Your task to perform on an android device: show emergency info Image 0: 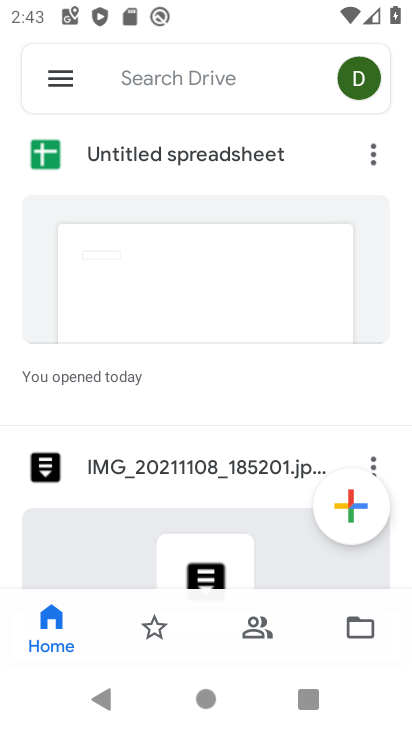
Step 0: press back button
Your task to perform on an android device: show emergency info Image 1: 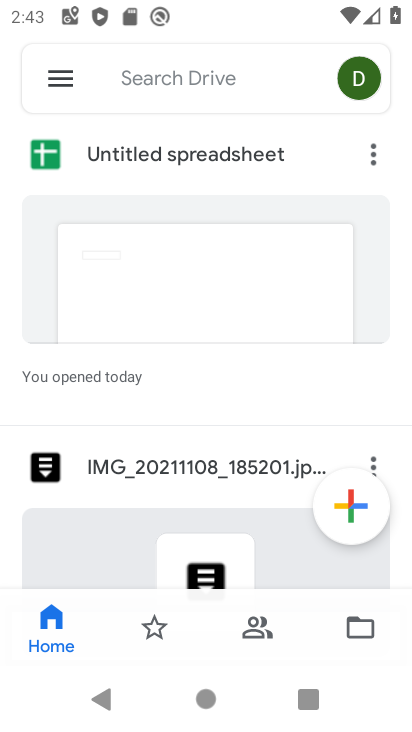
Step 1: press back button
Your task to perform on an android device: show emergency info Image 2: 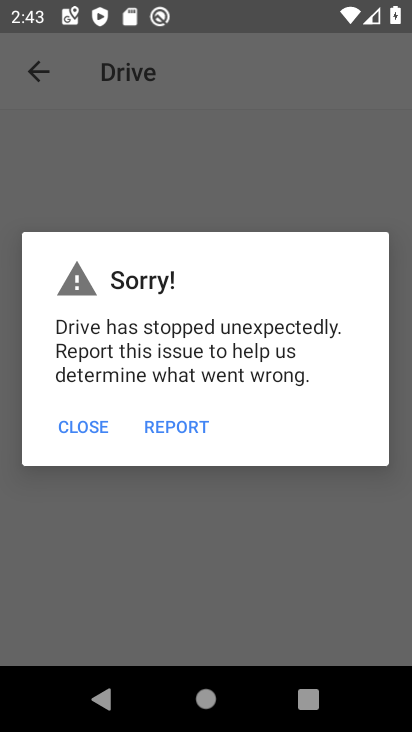
Step 2: click (411, 693)
Your task to perform on an android device: show emergency info Image 3: 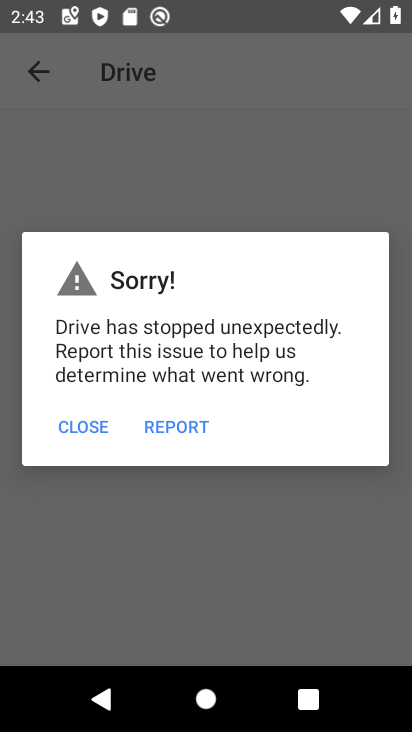
Step 3: click (73, 431)
Your task to perform on an android device: show emergency info Image 4: 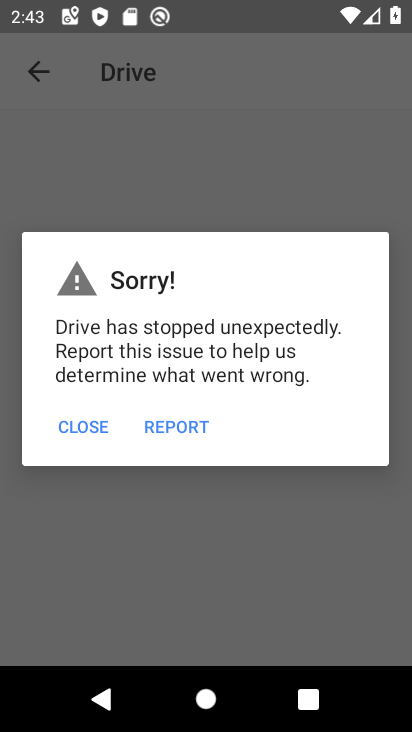
Step 4: click (73, 431)
Your task to perform on an android device: show emergency info Image 5: 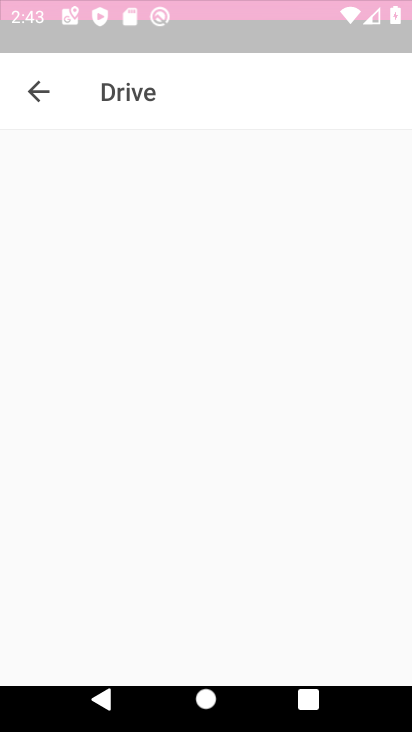
Step 5: click (73, 431)
Your task to perform on an android device: show emergency info Image 6: 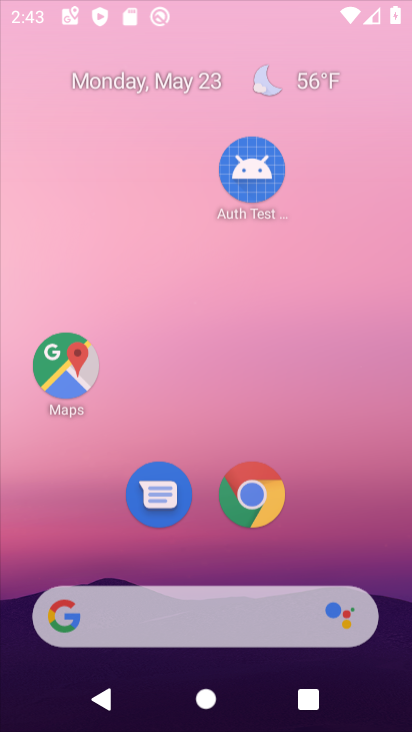
Step 6: click (77, 428)
Your task to perform on an android device: show emergency info Image 7: 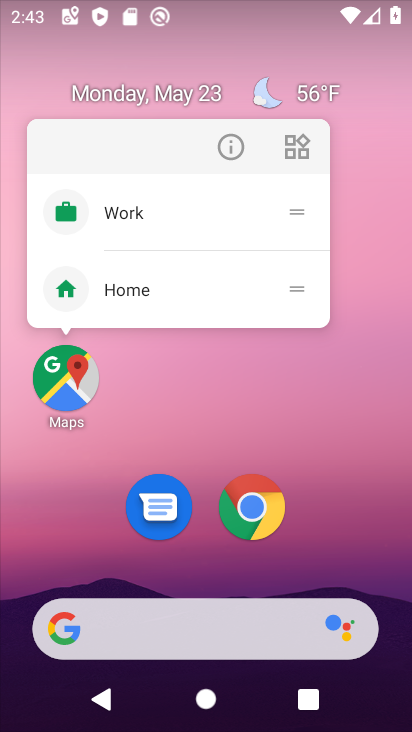
Step 7: drag from (303, 630) to (193, 61)
Your task to perform on an android device: show emergency info Image 8: 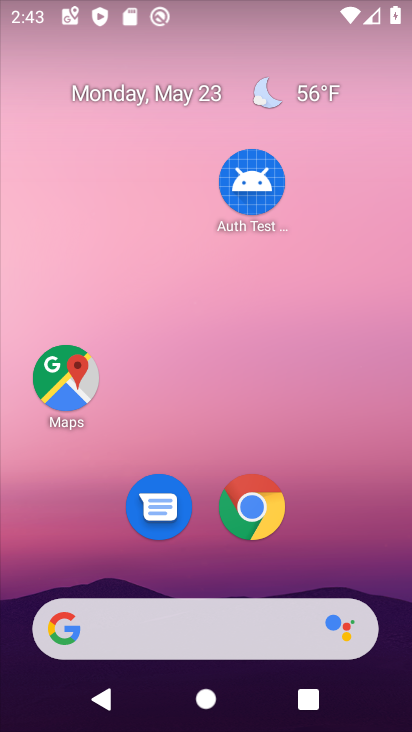
Step 8: drag from (283, 612) to (132, 52)
Your task to perform on an android device: show emergency info Image 9: 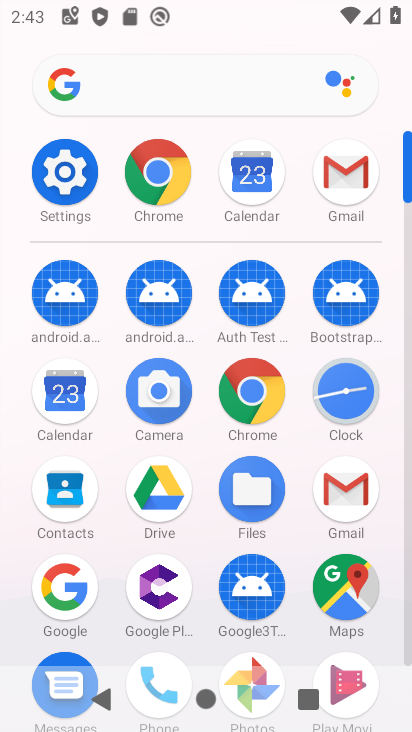
Step 9: drag from (275, 637) to (183, 23)
Your task to perform on an android device: show emergency info Image 10: 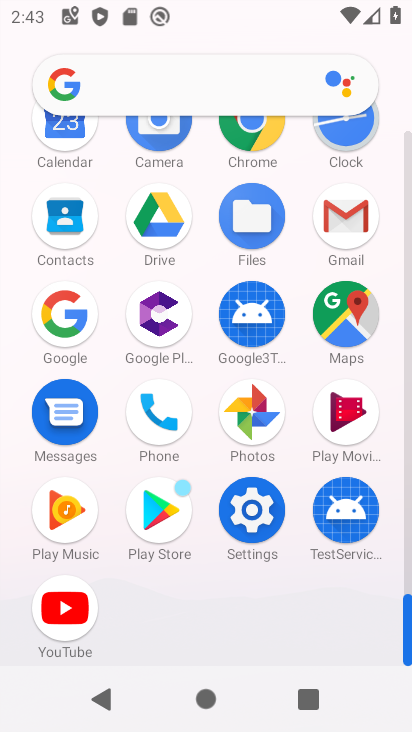
Step 10: click (251, 517)
Your task to perform on an android device: show emergency info Image 11: 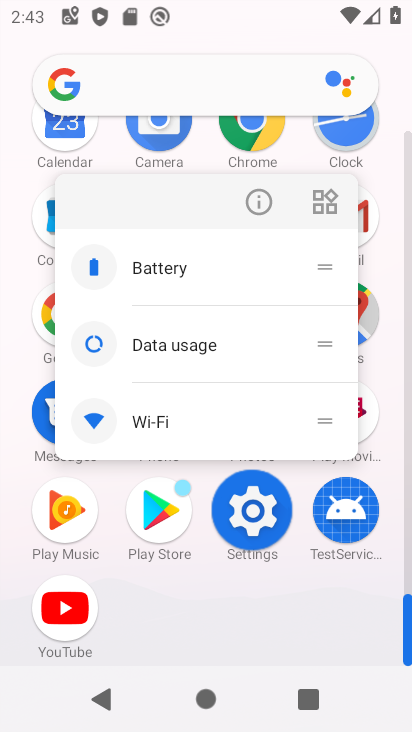
Step 11: click (251, 517)
Your task to perform on an android device: show emergency info Image 12: 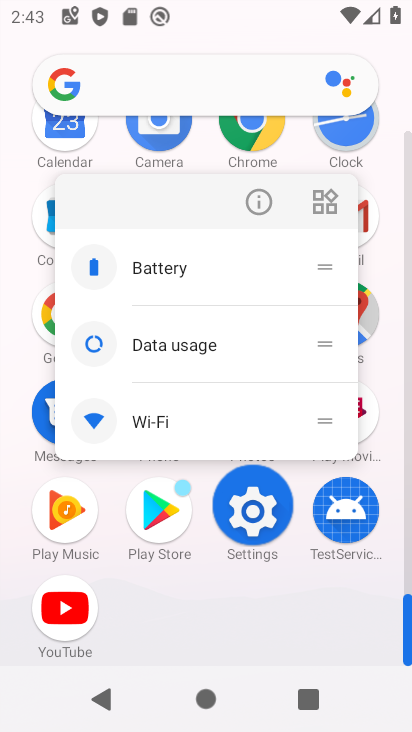
Step 12: click (252, 511)
Your task to perform on an android device: show emergency info Image 13: 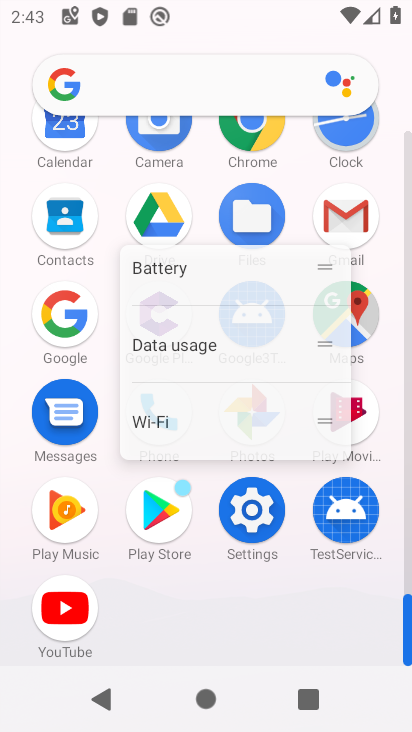
Step 13: click (252, 511)
Your task to perform on an android device: show emergency info Image 14: 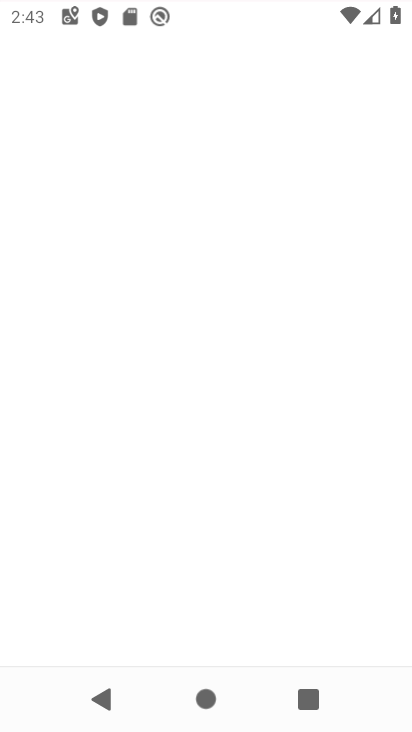
Step 14: click (252, 511)
Your task to perform on an android device: show emergency info Image 15: 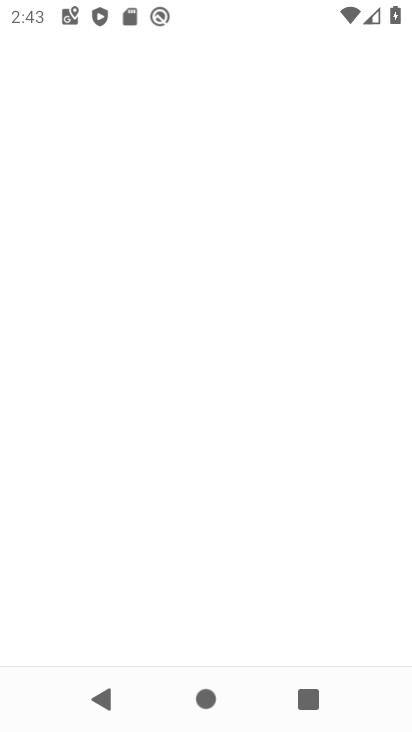
Step 15: click (252, 511)
Your task to perform on an android device: show emergency info Image 16: 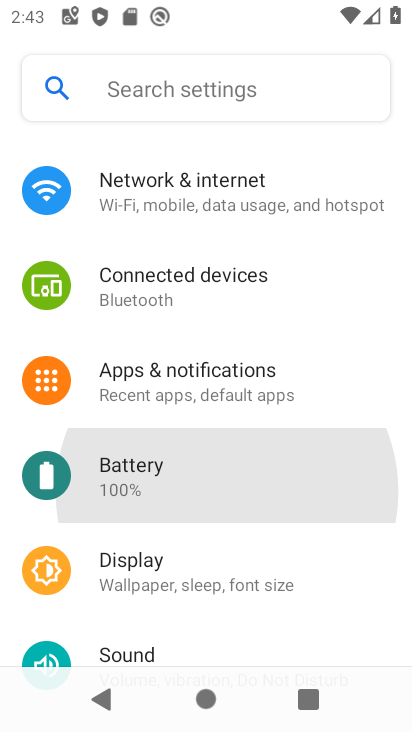
Step 16: click (252, 510)
Your task to perform on an android device: show emergency info Image 17: 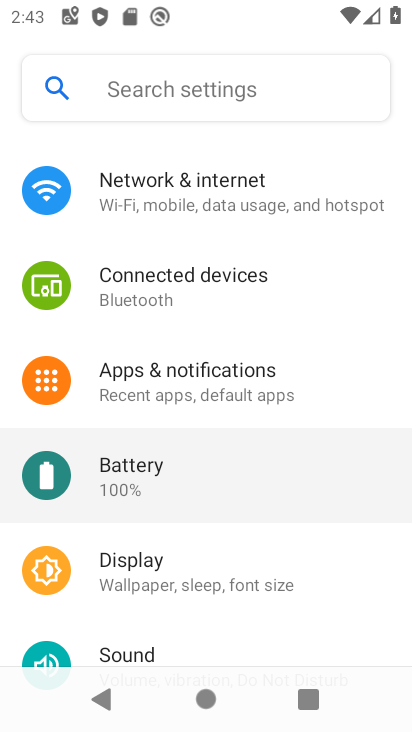
Step 17: click (252, 510)
Your task to perform on an android device: show emergency info Image 18: 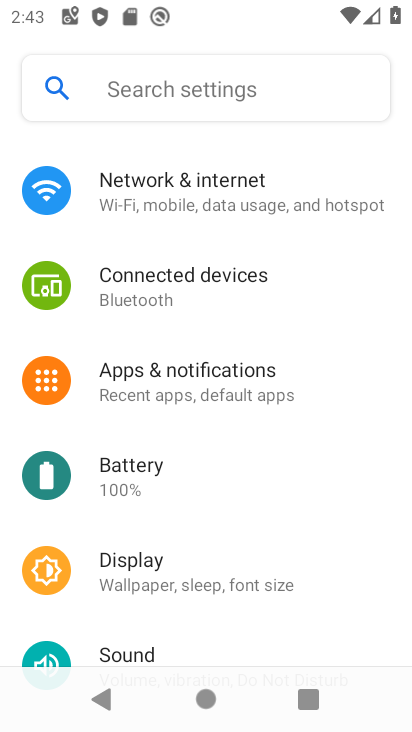
Step 18: click (253, 509)
Your task to perform on an android device: show emergency info Image 19: 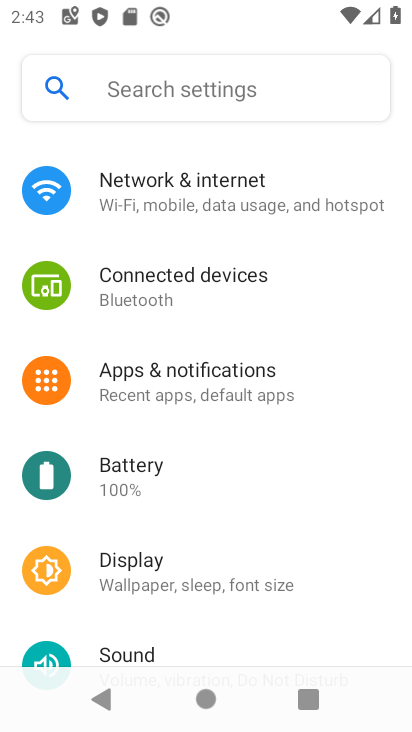
Step 19: click (263, 502)
Your task to perform on an android device: show emergency info Image 20: 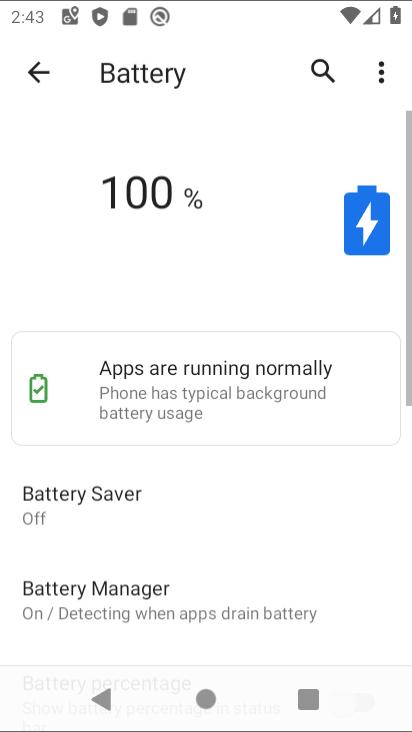
Step 20: click (263, 502)
Your task to perform on an android device: show emergency info Image 21: 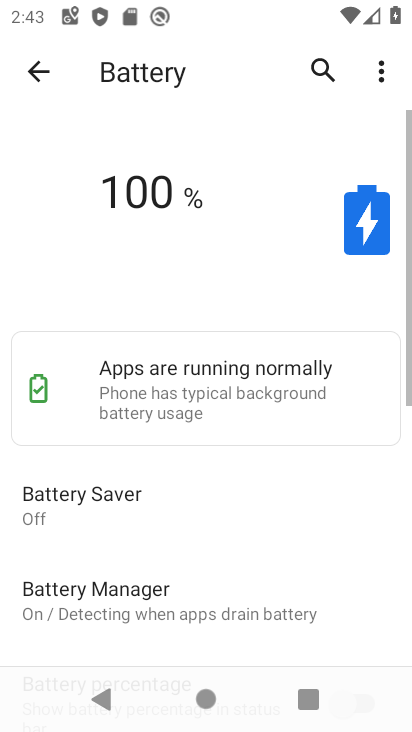
Step 21: click (263, 502)
Your task to perform on an android device: show emergency info Image 22: 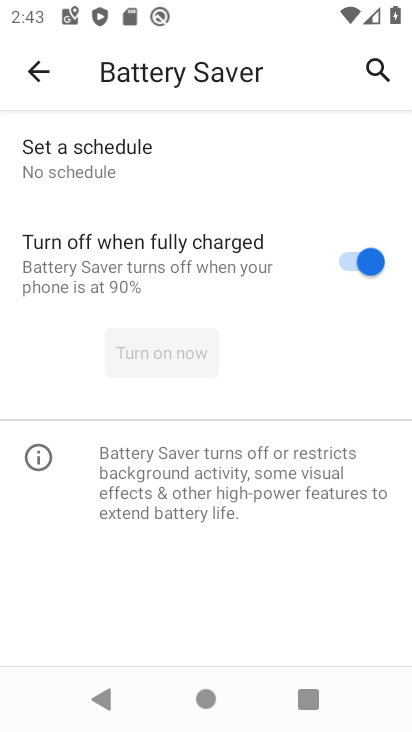
Step 22: click (34, 69)
Your task to perform on an android device: show emergency info Image 23: 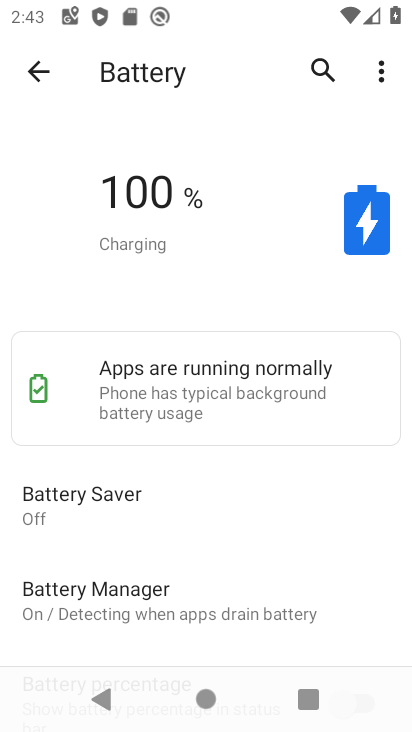
Step 23: click (32, 68)
Your task to perform on an android device: show emergency info Image 24: 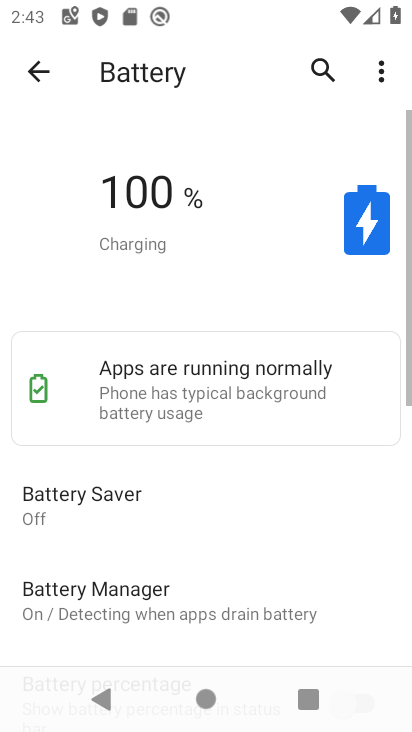
Step 24: click (35, 70)
Your task to perform on an android device: show emergency info Image 25: 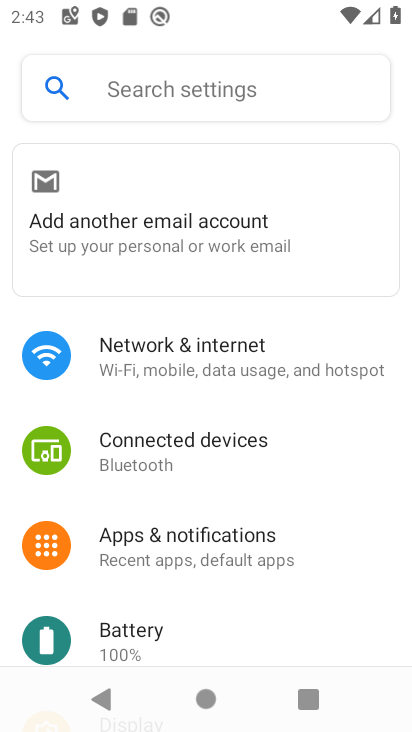
Step 25: drag from (187, 586) to (139, 140)
Your task to perform on an android device: show emergency info Image 26: 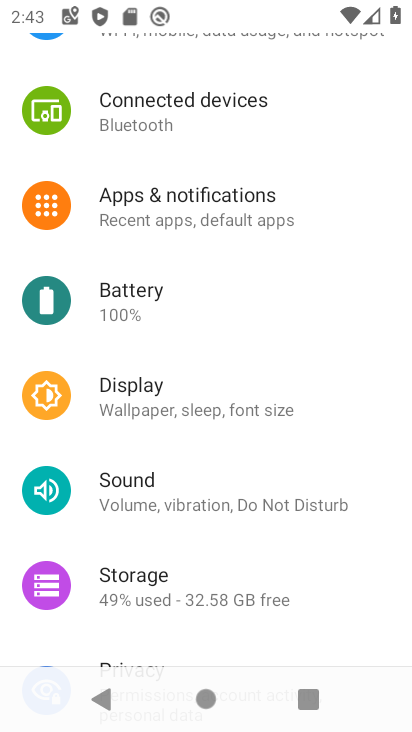
Step 26: drag from (210, 327) to (210, 66)
Your task to perform on an android device: show emergency info Image 27: 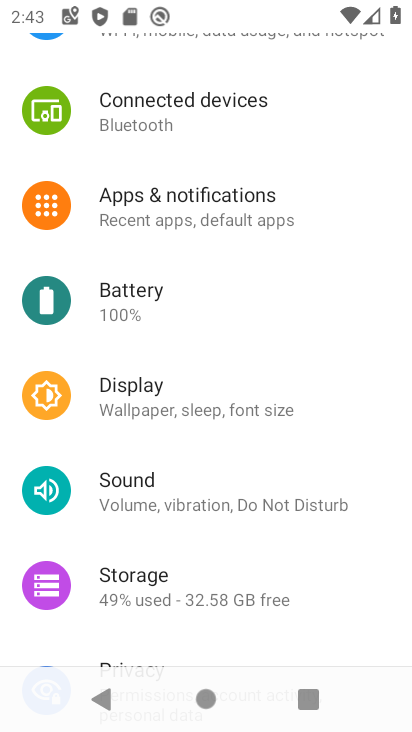
Step 27: drag from (255, 477) to (214, 53)
Your task to perform on an android device: show emergency info Image 28: 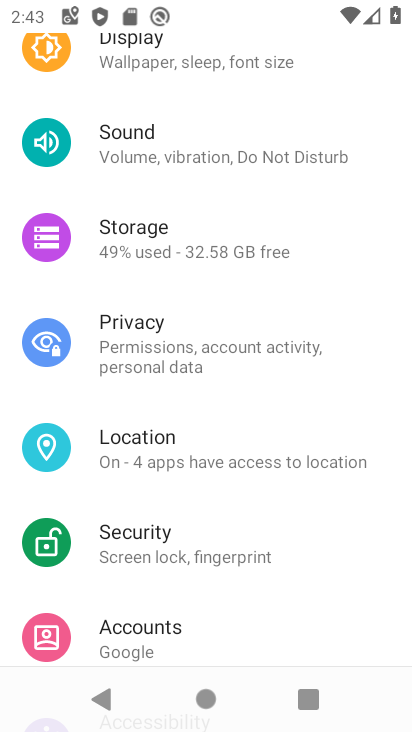
Step 28: click (224, 20)
Your task to perform on an android device: show emergency info Image 29: 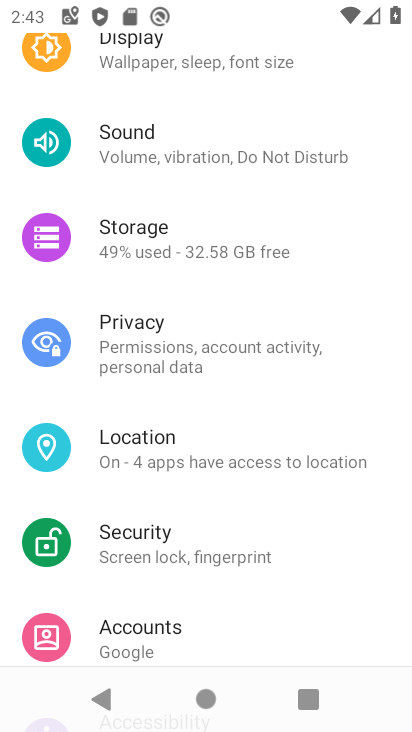
Step 29: drag from (184, 502) to (127, 176)
Your task to perform on an android device: show emergency info Image 30: 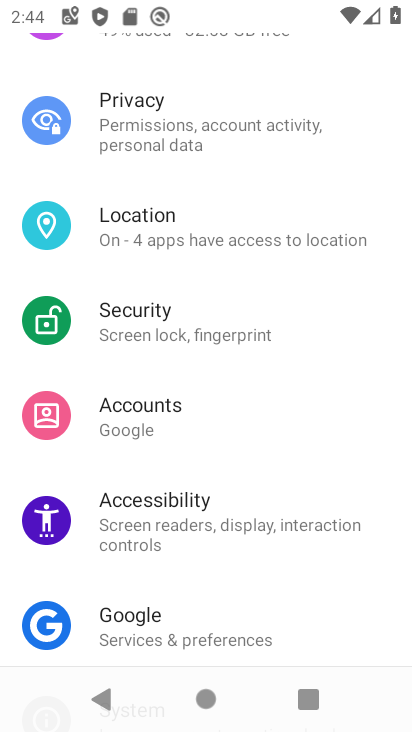
Step 30: drag from (225, 362) to (223, 89)
Your task to perform on an android device: show emergency info Image 31: 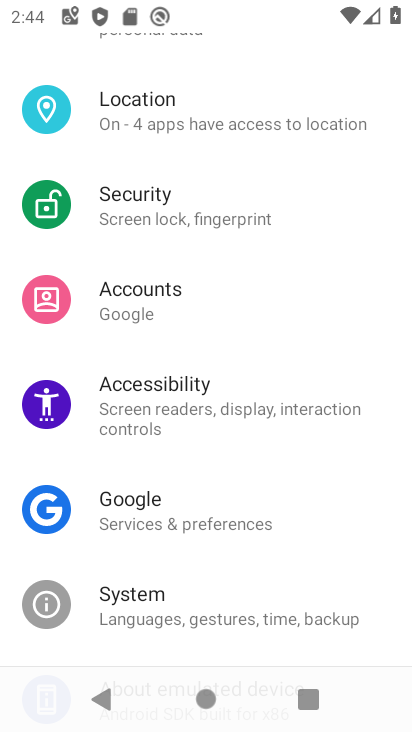
Step 31: drag from (260, 406) to (227, 41)
Your task to perform on an android device: show emergency info Image 32: 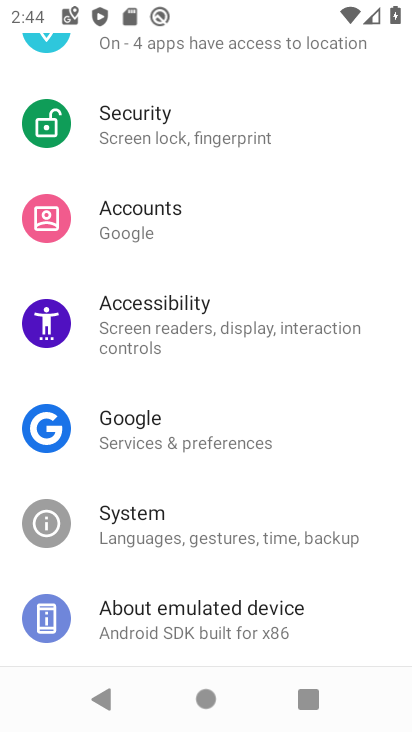
Step 32: drag from (211, 508) to (146, 7)
Your task to perform on an android device: show emergency info Image 33: 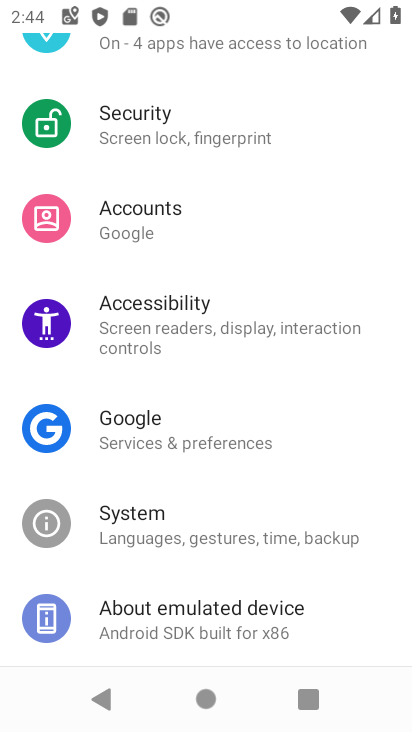
Step 33: click (172, 625)
Your task to perform on an android device: show emergency info Image 34: 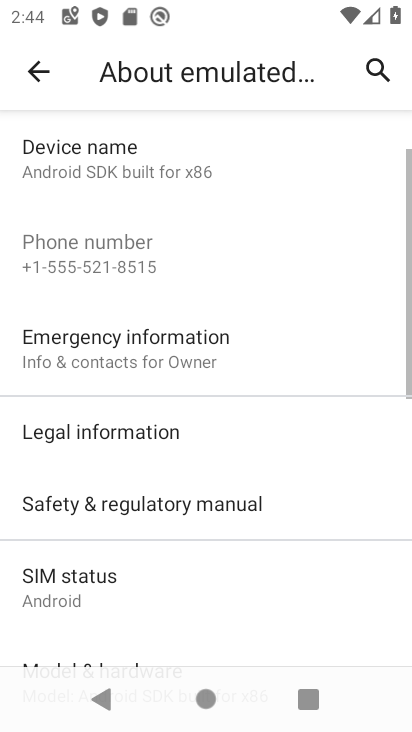
Step 34: task complete